Your task to perform on an android device: open app "Google Chat" Image 0: 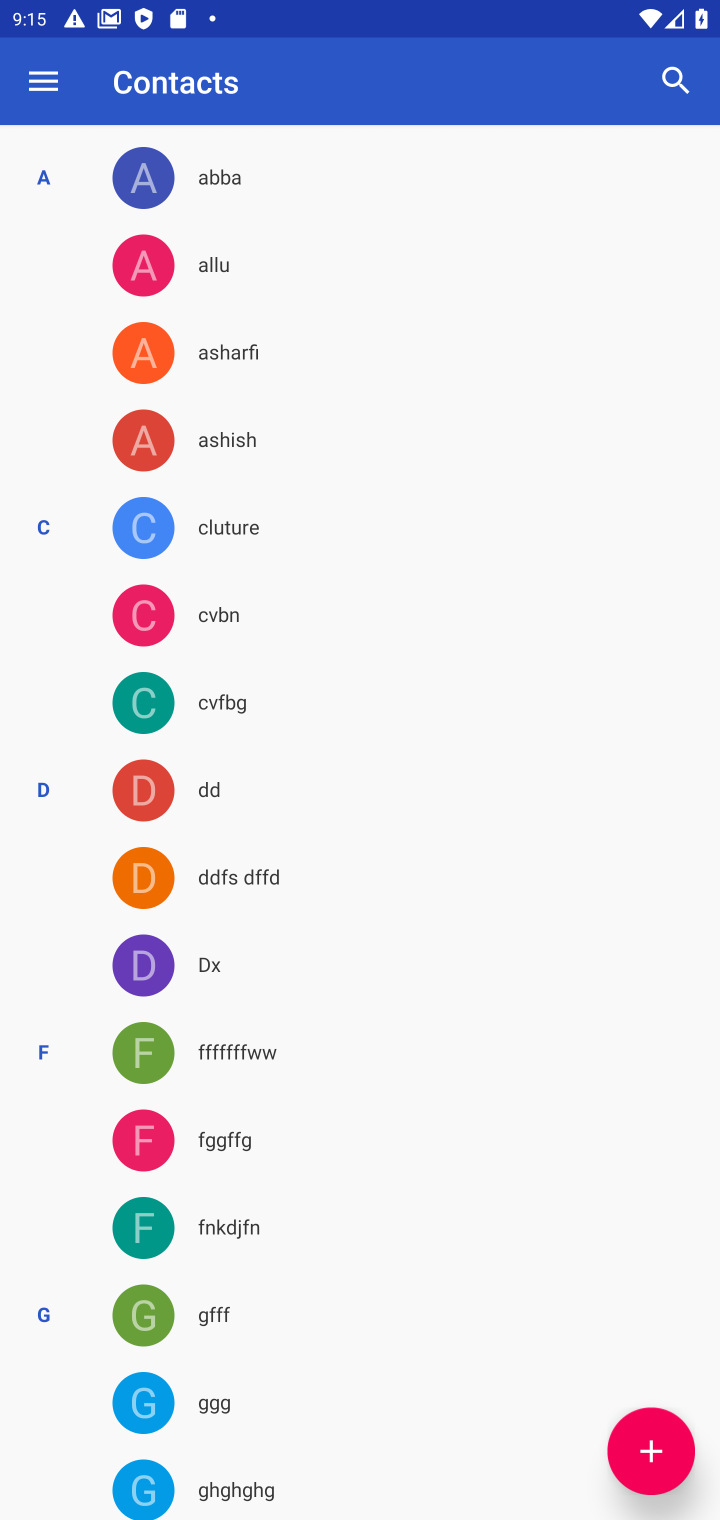
Step 0: press home button
Your task to perform on an android device: open app "Google Chat" Image 1: 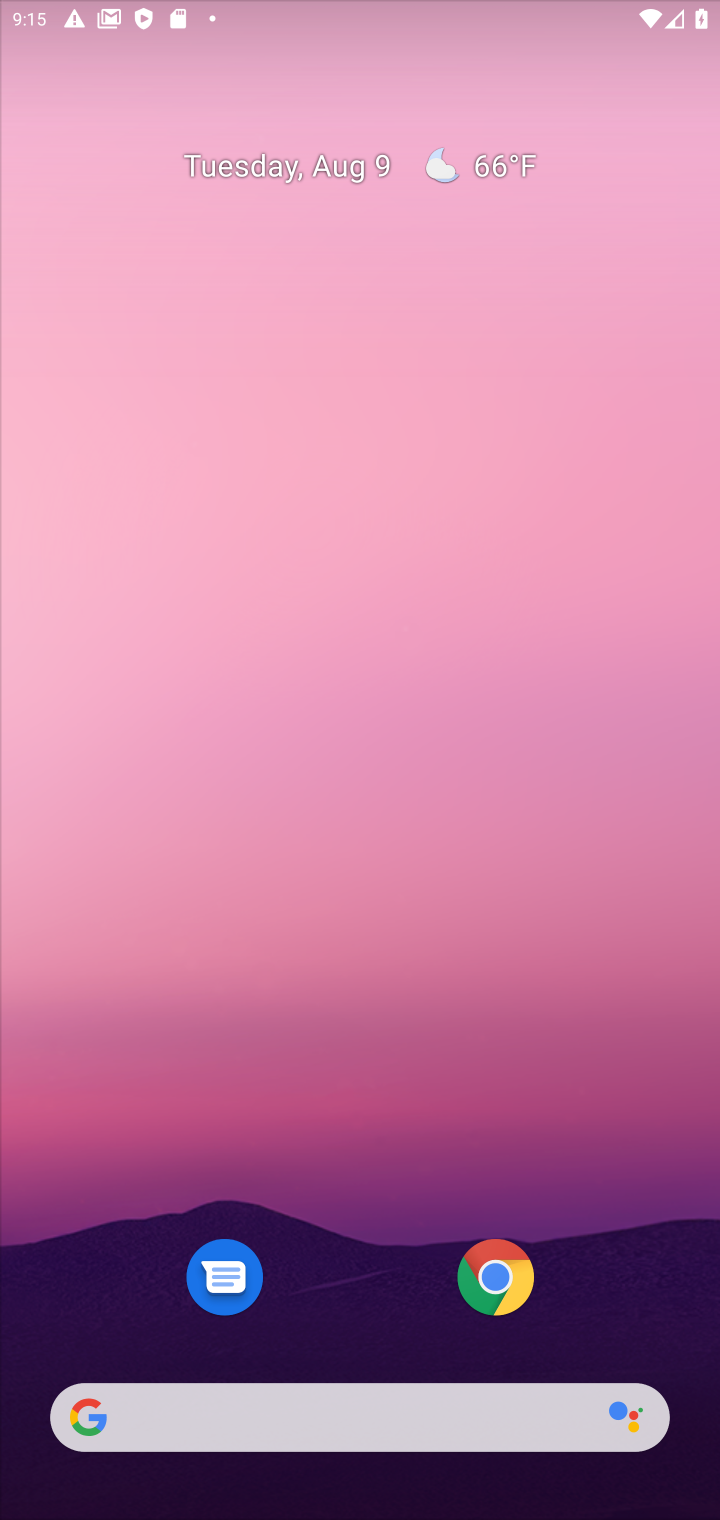
Step 1: drag from (289, 1380) to (277, 15)
Your task to perform on an android device: open app "Google Chat" Image 2: 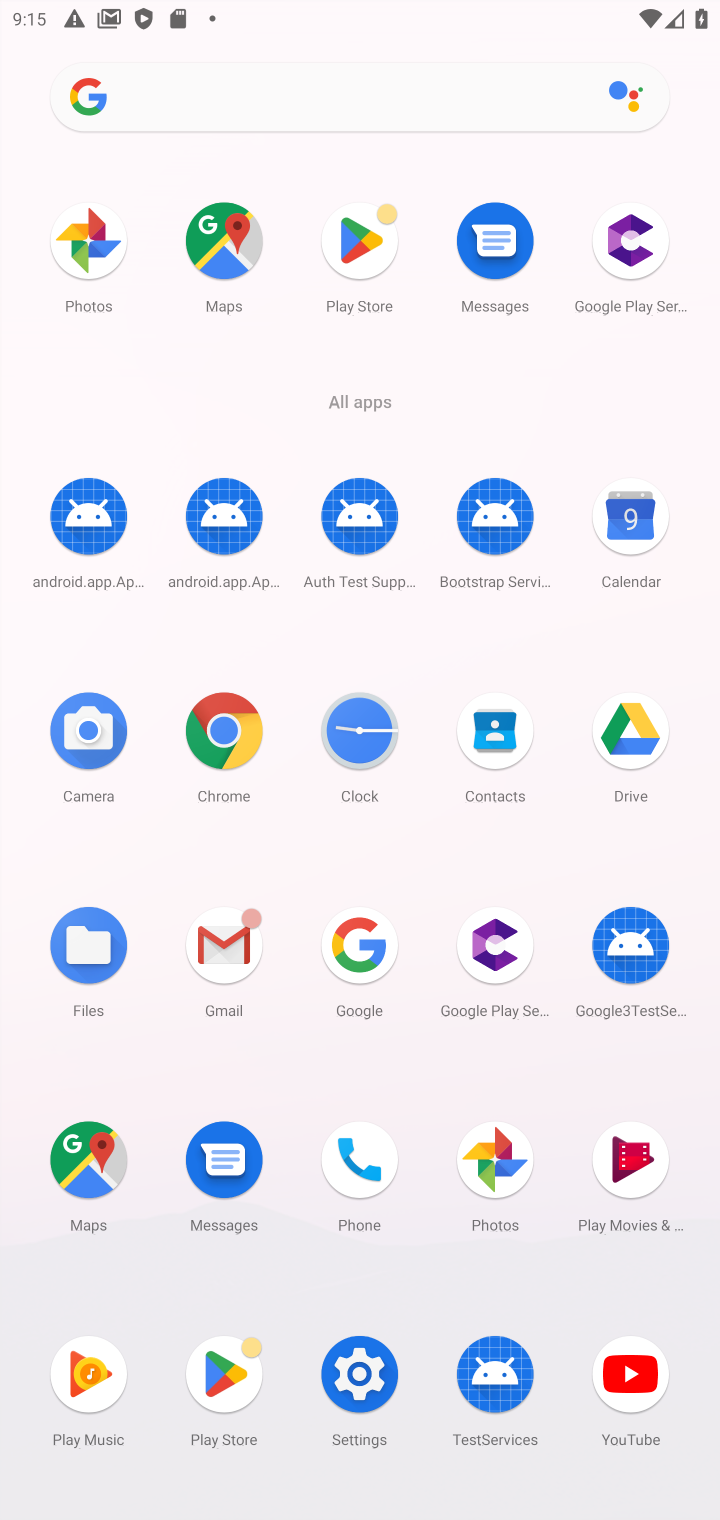
Step 2: click (228, 1365)
Your task to perform on an android device: open app "Google Chat" Image 3: 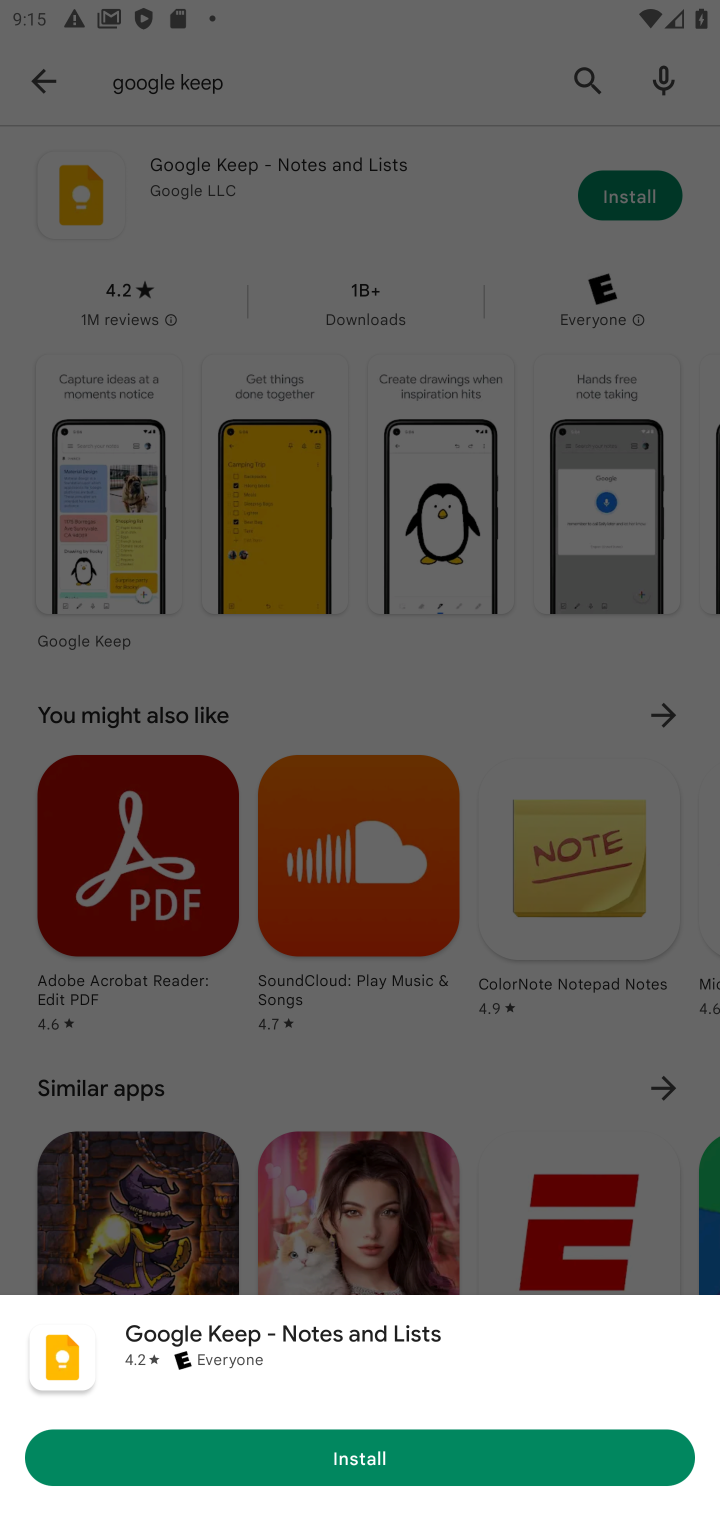
Step 3: click (217, 692)
Your task to perform on an android device: open app "Google Chat" Image 4: 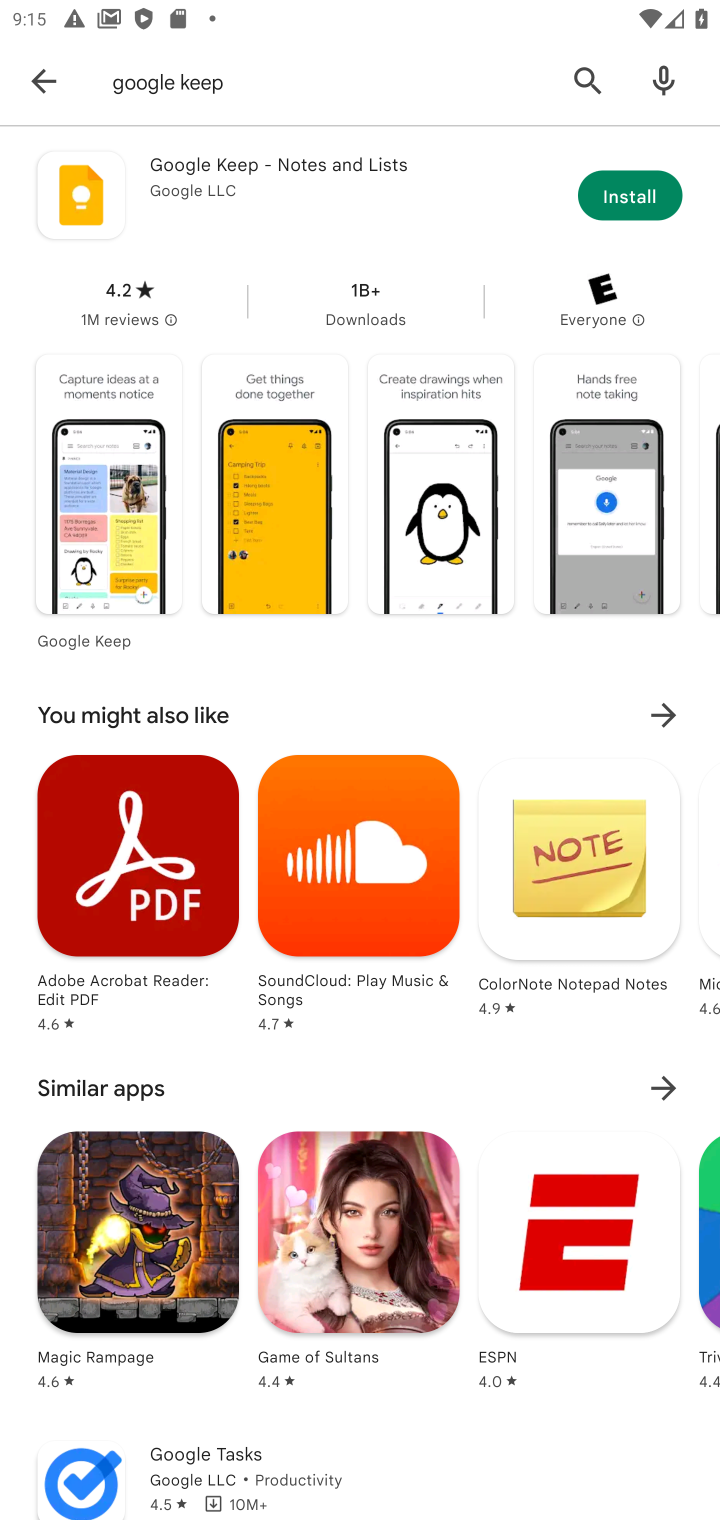
Step 4: click (50, 88)
Your task to perform on an android device: open app "Google Chat" Image 5: 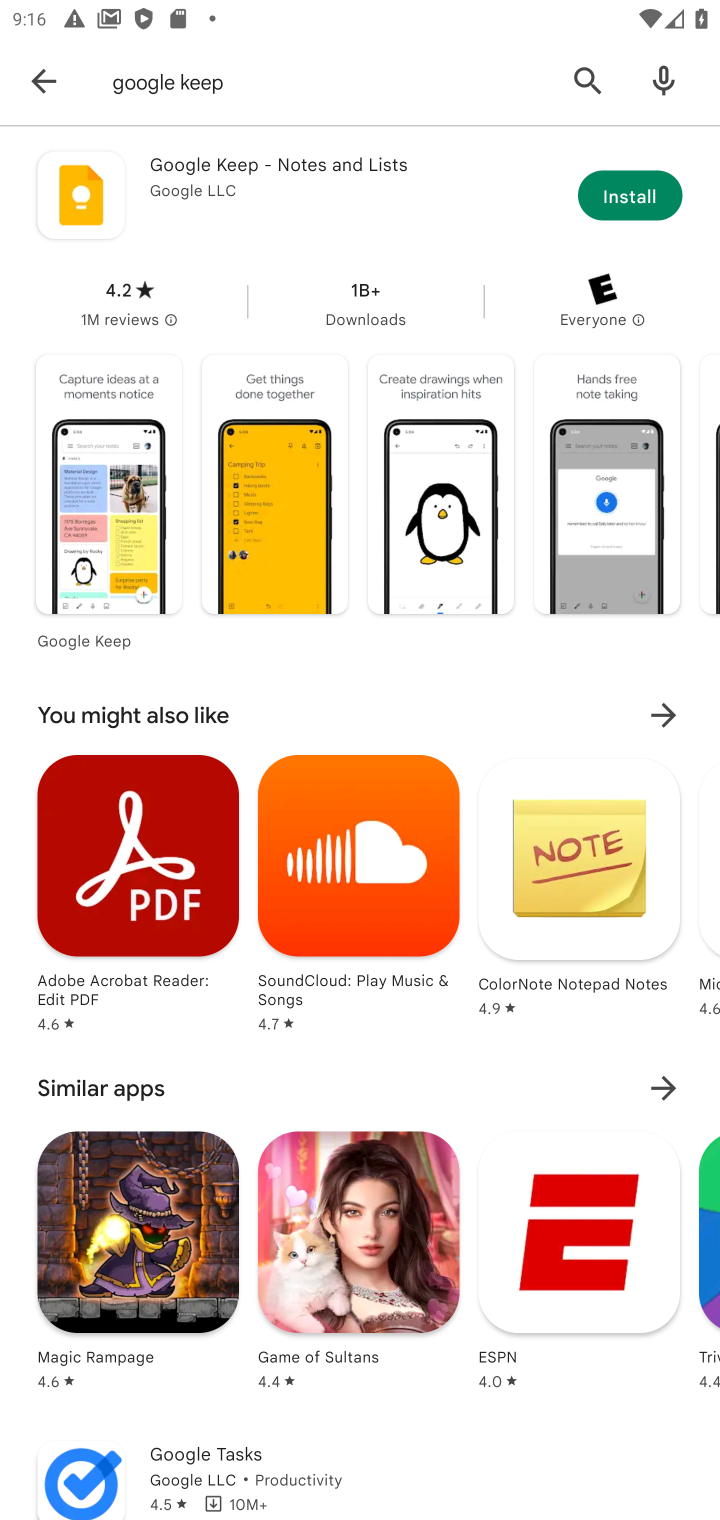
Step 5: click (45, 87)
Your task to perform on an android device: open app "Google Chat" Image 6: 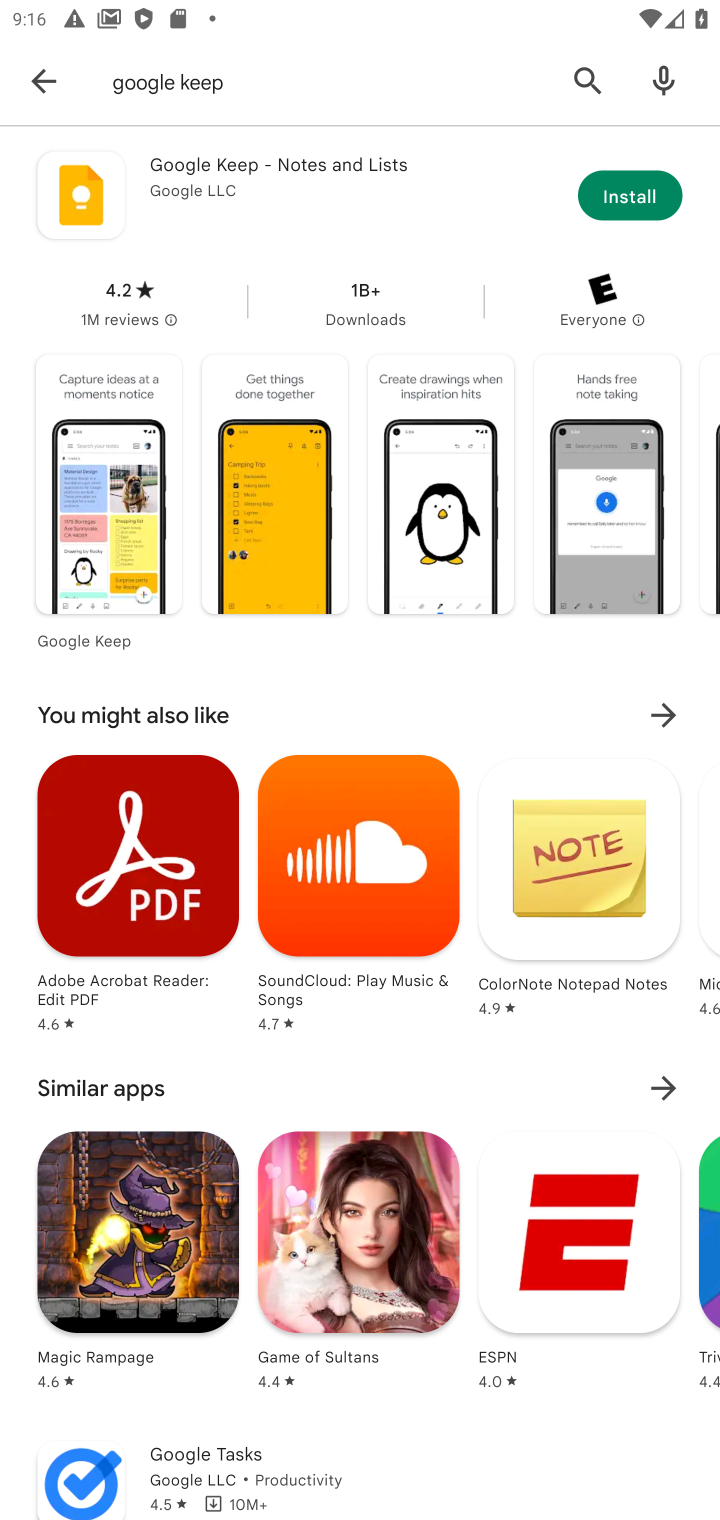
Step 6: click (48, 73)
Your task to perform on an android device: open app "Google Chat" Image 7: 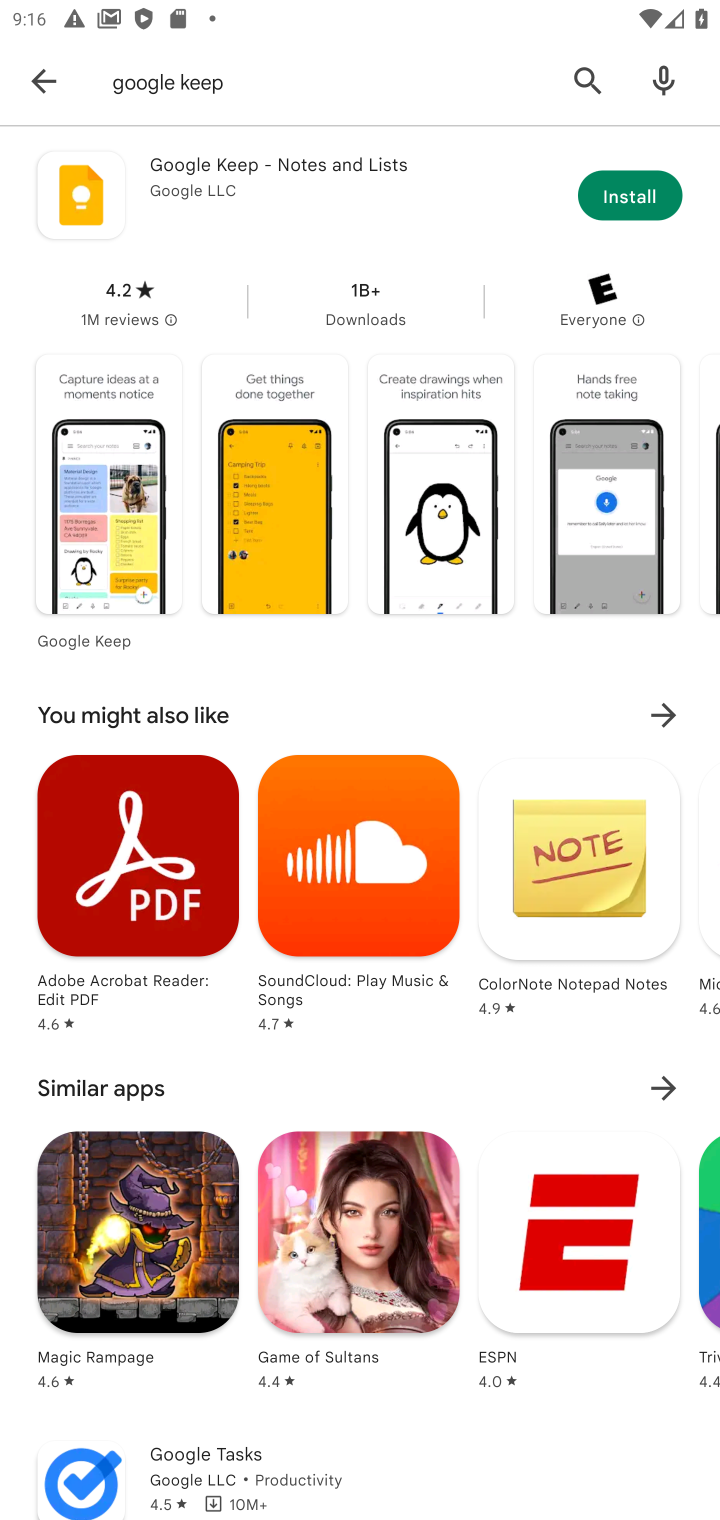
Step 7: click (48, 73)
Your task to perform on an android device: open app "Google Chat" Image 8: 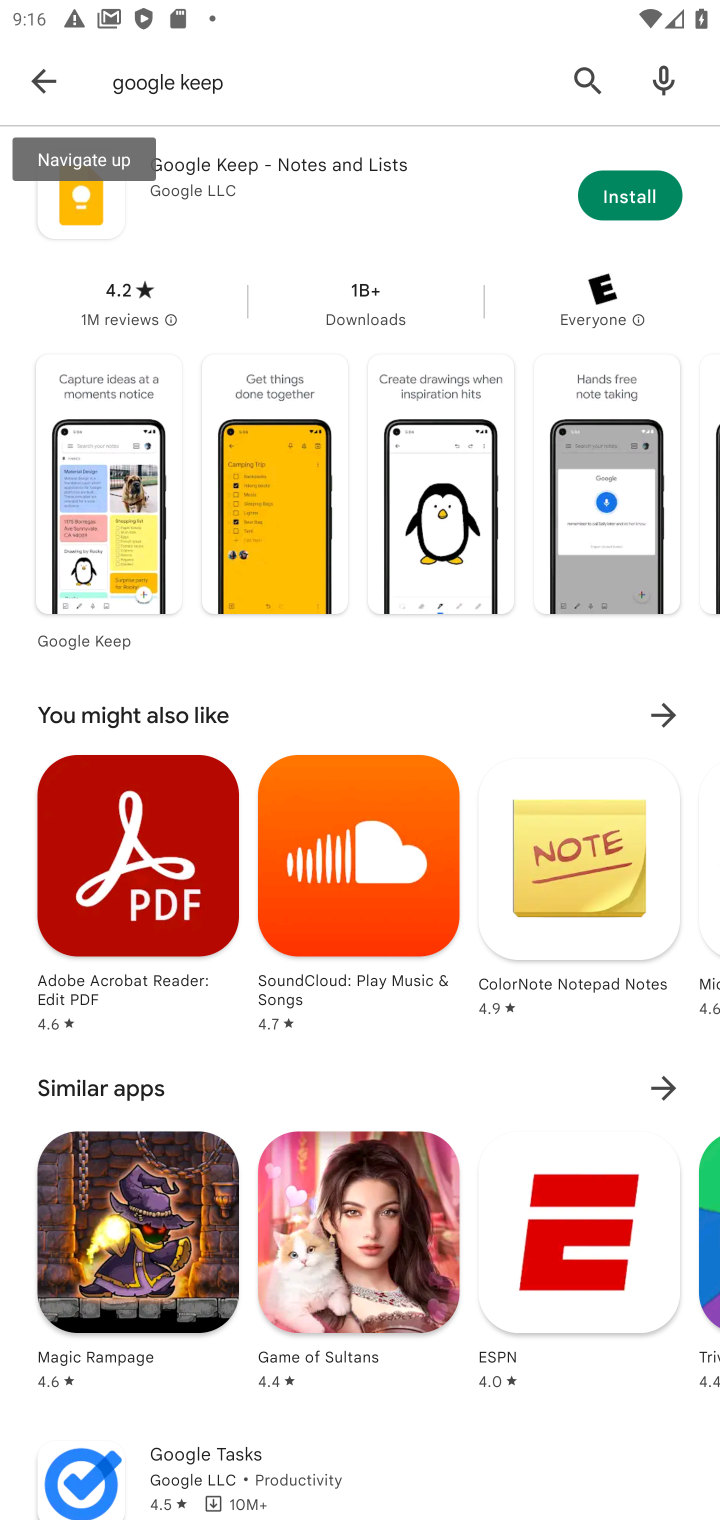
Step 8: click (573, 78)
Your task to perform on an android device: open app "Google Chat" Image 9: 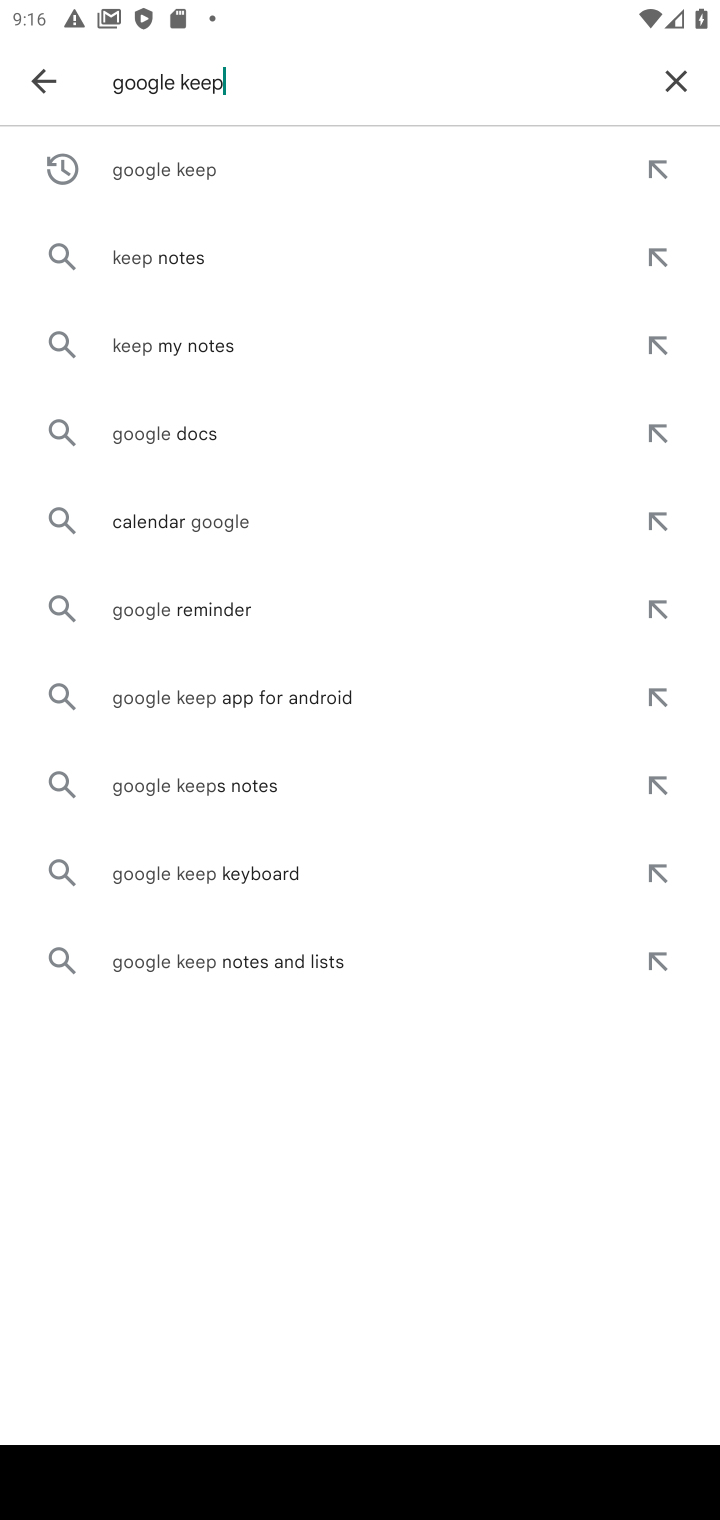
Step 9: click (663, 71)
Your task to perform on an android device: open app "Google Chat" Image 10: 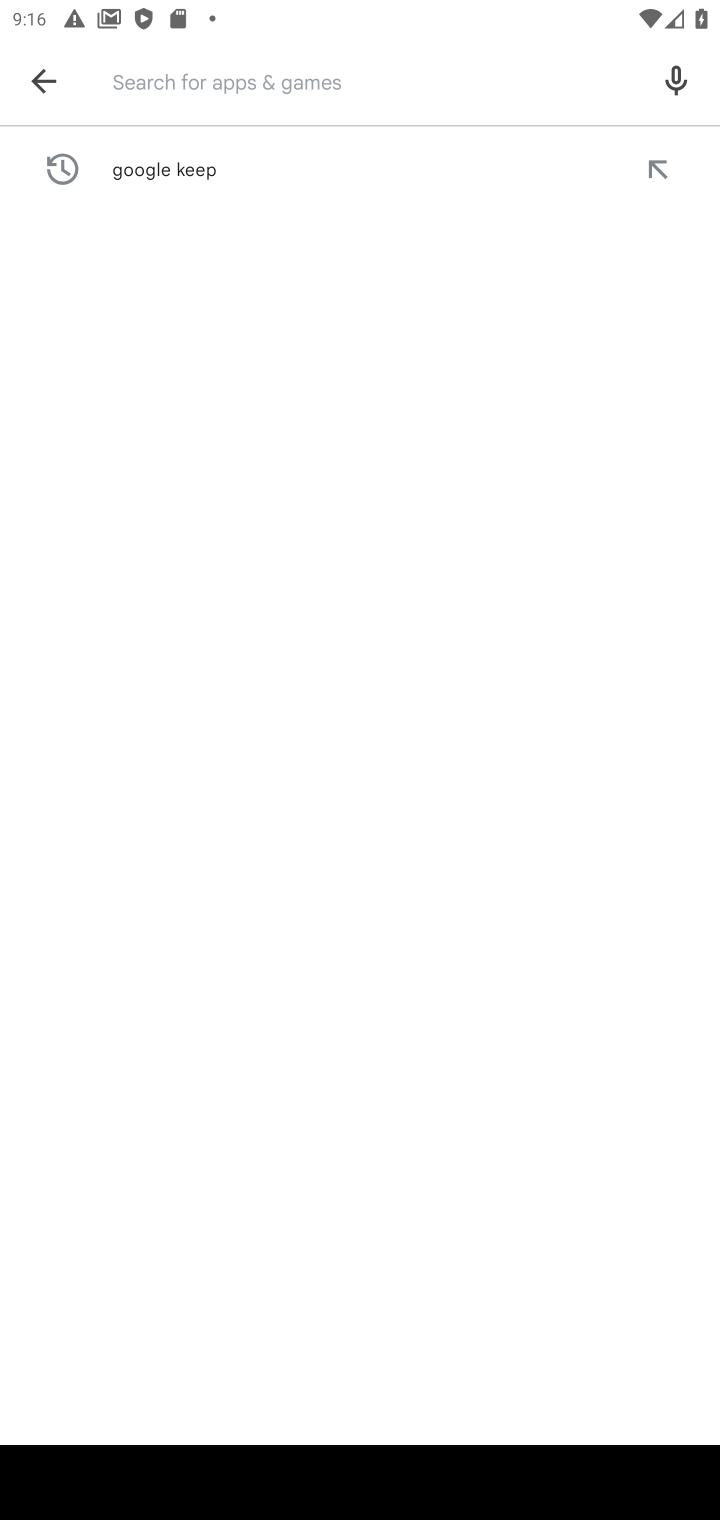
Step 10: type "Google Cha"
Your task to perform on an android device: open app "Google Chat" Image 11: 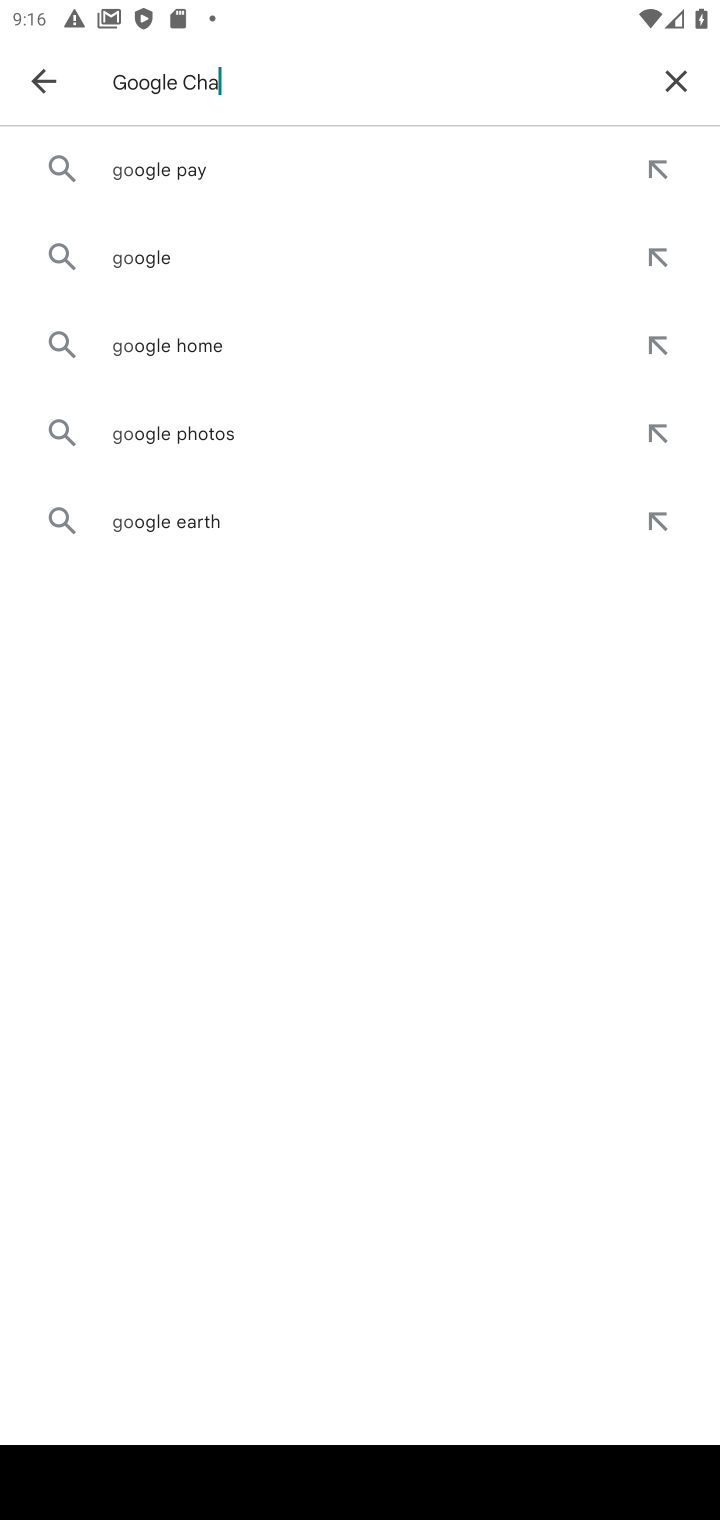
Step 11: type ""
Your task to perform on an android device: open app "Google Chat" Image 12: 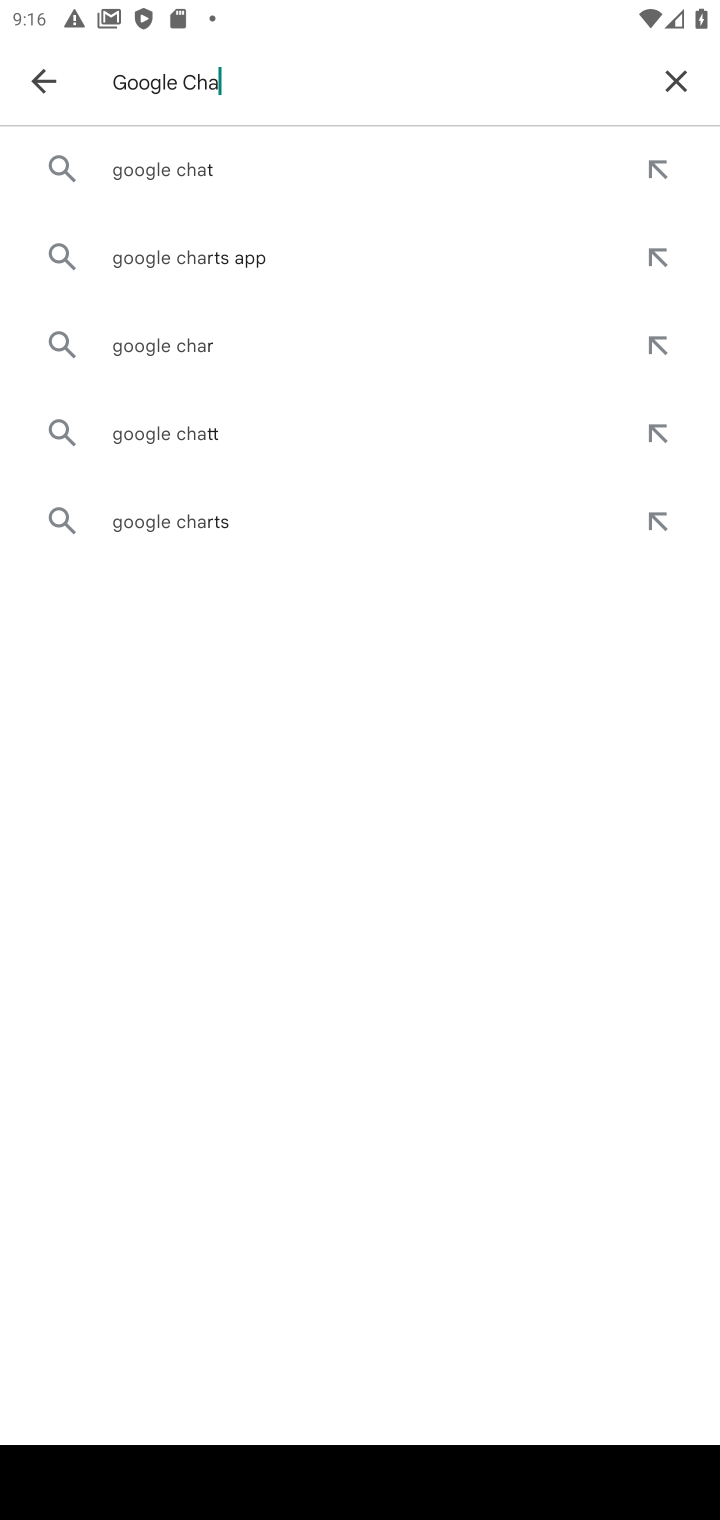
Step 12: click (134, 203)
Your task to perform on an android device: open app "Google Chat" Image 13: 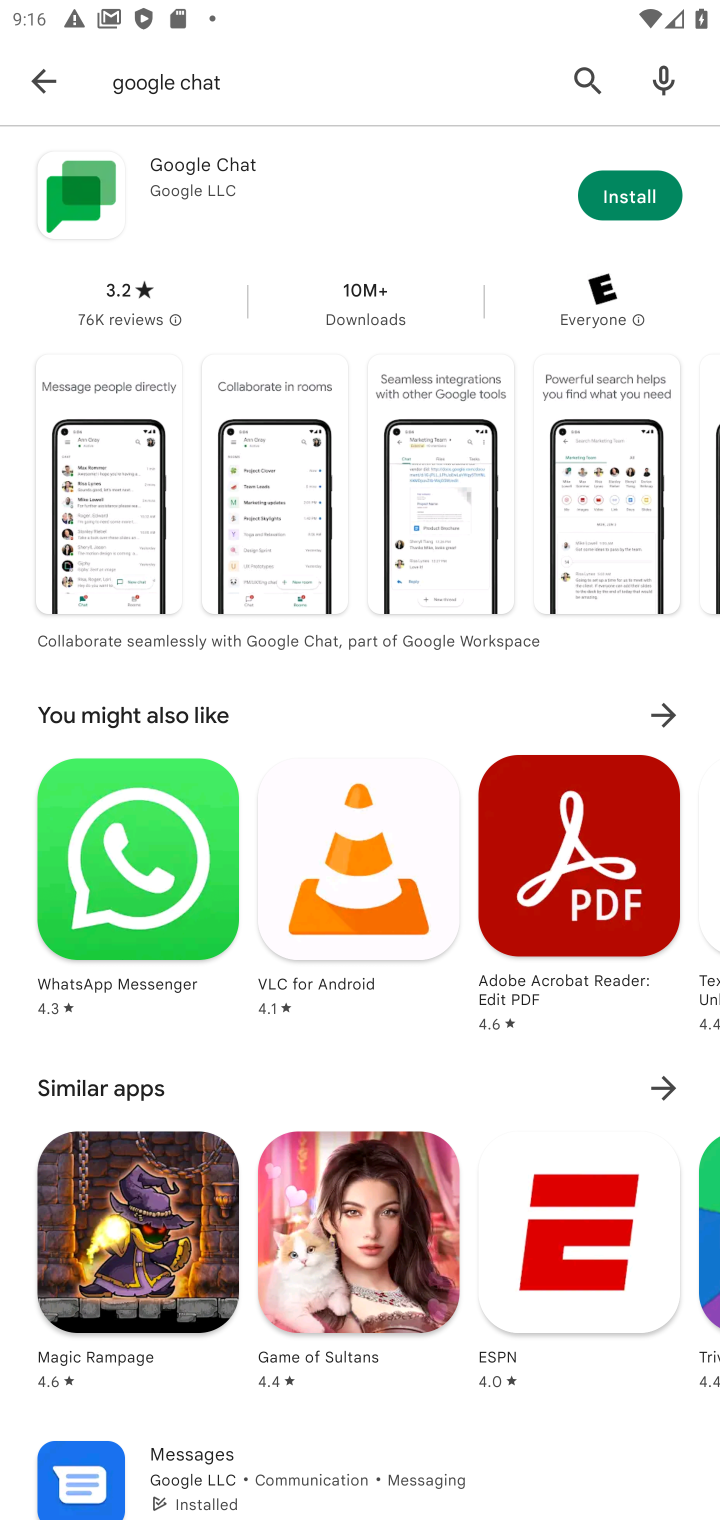
Step 13: task complete